Your task to perform on an android device: find photos in the google photos app Image 0: 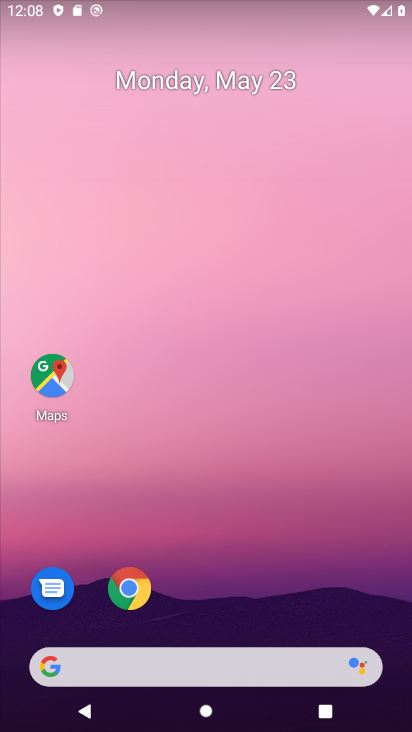
Step 0: drag from (236, 722) to (203, 82)
Your task to perform on an android device: find photos in the google photos app Image 1: 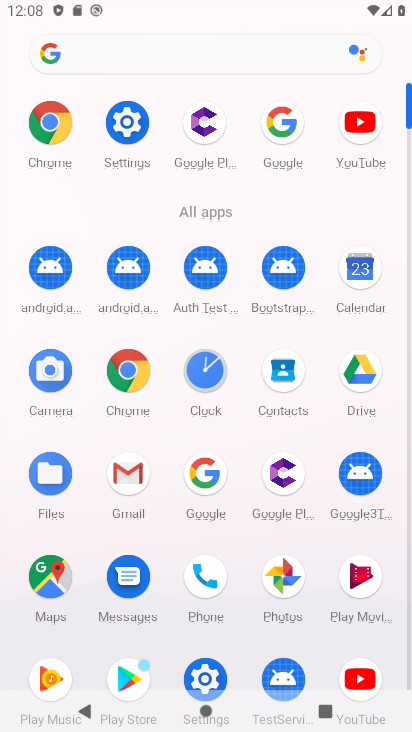
Step 1: click (291, 575)
Your task to perform on an android device: find photos in the google photos app Image 2: 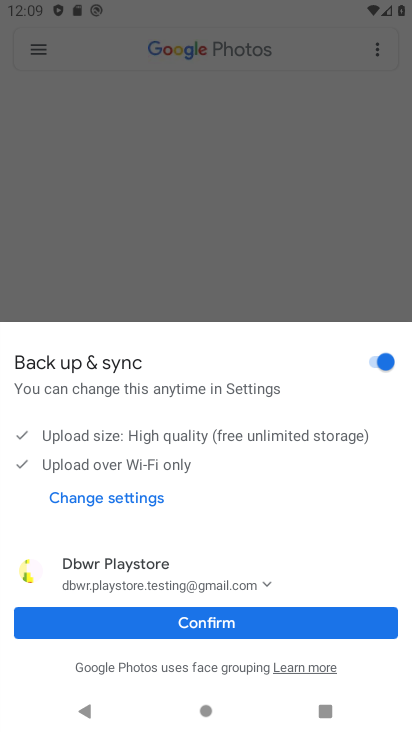
Step 2: click (217, 615)
Your task to perform on an android device: find photos in the google photos app Image 3: 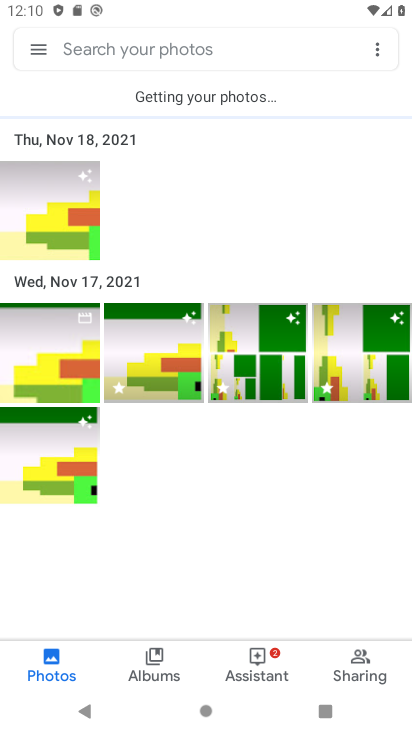
Step 3: click (46, 202)
Your task to perform on an android device: find photos in the google photos app Image 4: 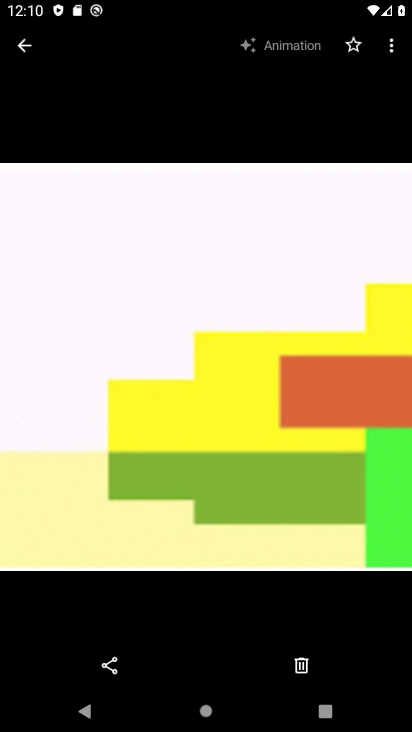
Step 4: task complete